Your task to perform on an android device: change alarm snooze length Image 0: 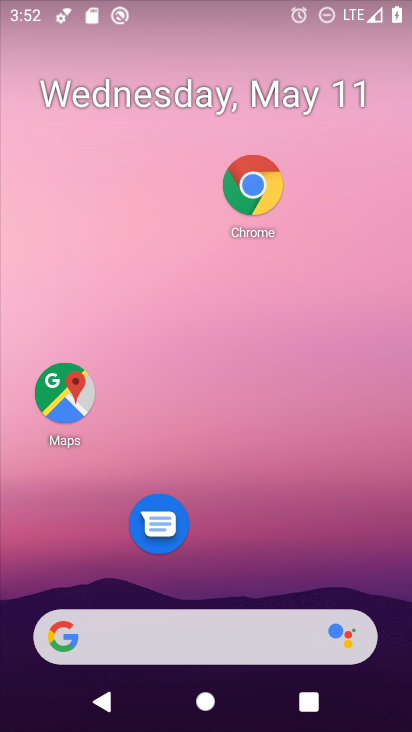
Step 0: drag from (301, 519) to (317, 27)
Your task to perform on an android device: change alarm snooze length Image 1: 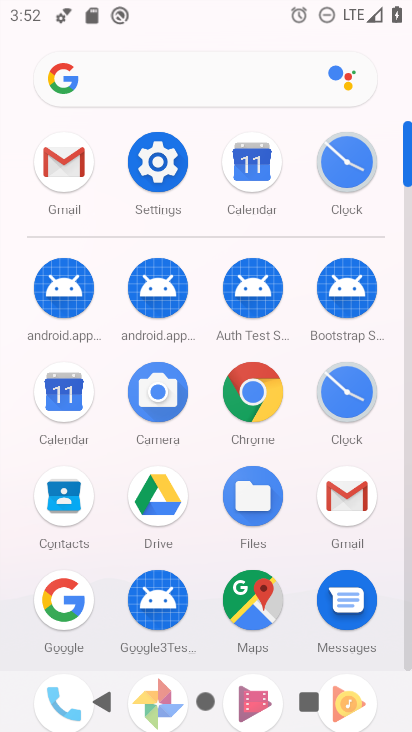
Step 1: click (352, 174)
Your task to perform on an android device: change alarm snooze length Image 2: 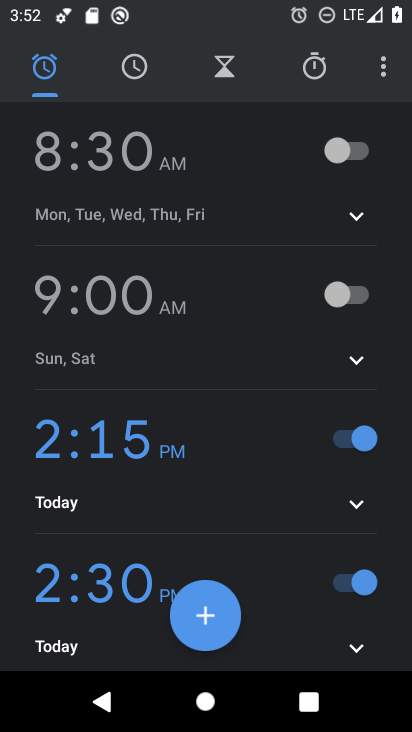
Step 2: click (378, 68)
Your task to perform on an android device: change alarm snooze length Image 3: 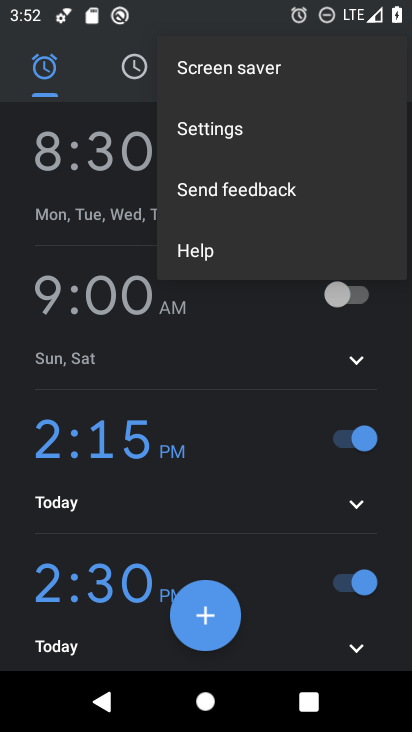
Step 3: click (305, 127)
Your task to perform on an android device: change alarm snooze length Image 4: 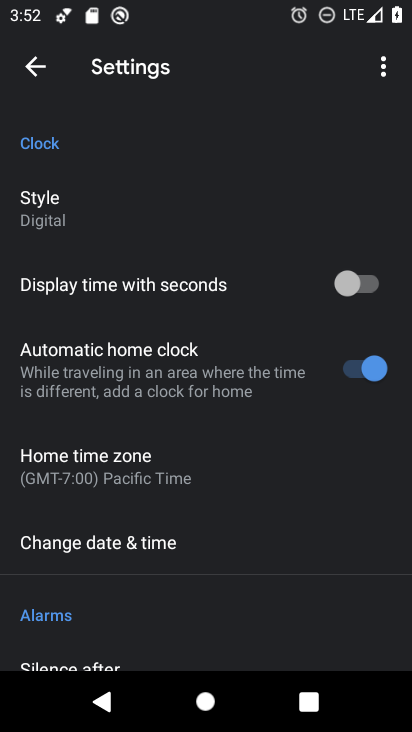
Step 4: drag from (242, 520) to (266, 126)
Your task to perform on an android device: change alarm snooze length Image 5: 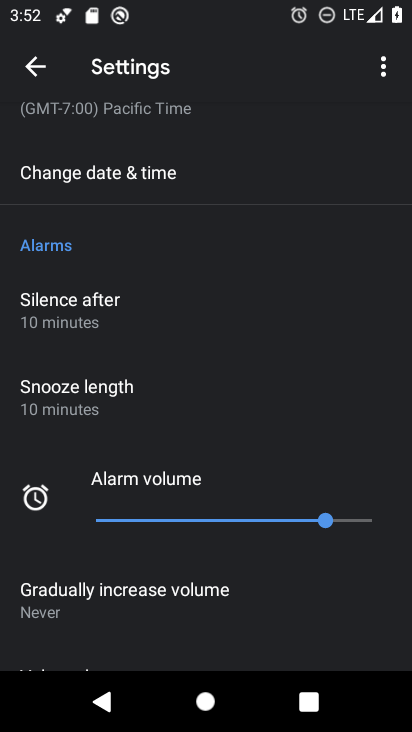
Step 5: drag from (186, 421) to (227, 79)
Your task to perform on an android device: change alarm snooze length Image 6: 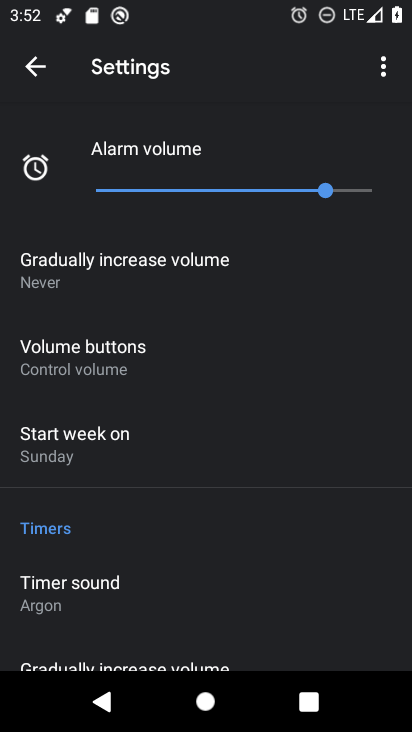
Step 6: drag from (264, 347) to (283, 610)
Your task to perform on an android device: change alarm snooze length Image 7: 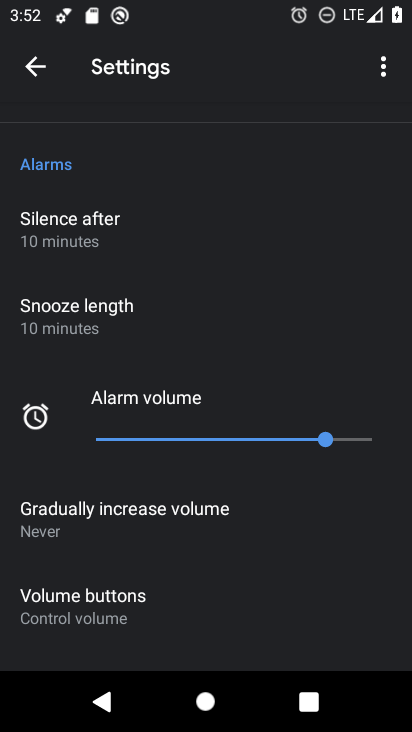
Step 7: click (119, 320)
Your task to perform on an android device: change alarm snooze length Image 8: 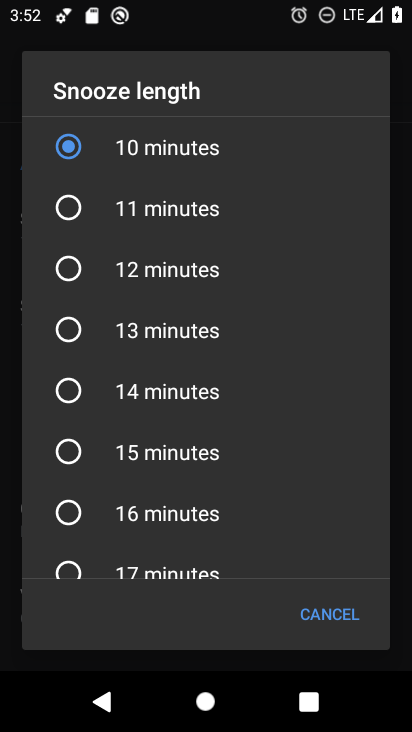
Step 8: click (72, 270)
Your task to perform on an android device: change alarm snooze length Image 9: 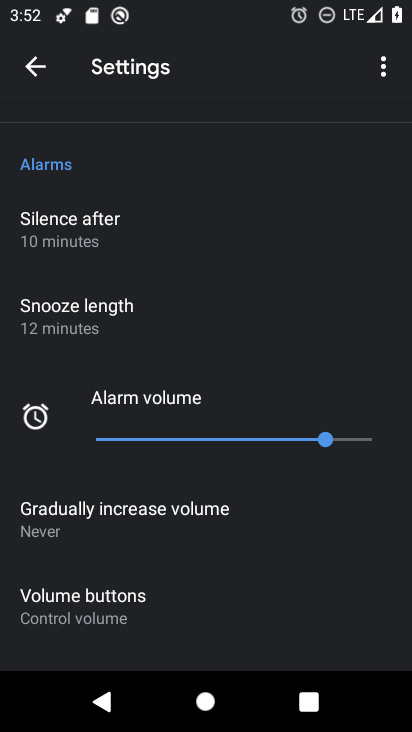
Step 9: task complete